Your task to perform on an android device: refresh tabs in the chrome app Image 0: 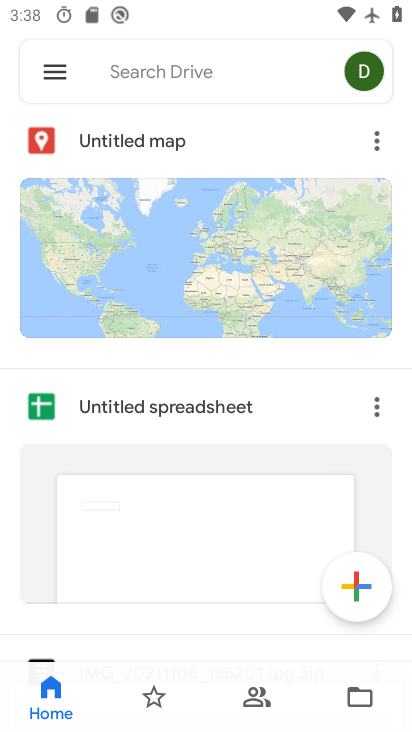
Step 0: press back button
Your task to perform on an android device: refresh tabs in the chrome app Image 1: 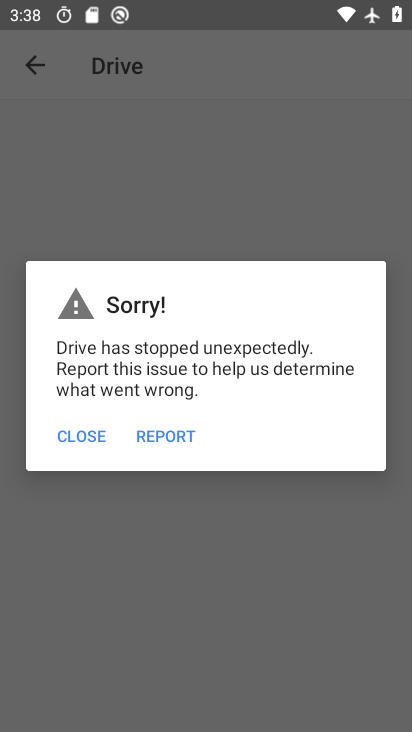
Step 1: press back button
Your task to perform on an android device: refresh tabs in the chrome app Image 2: 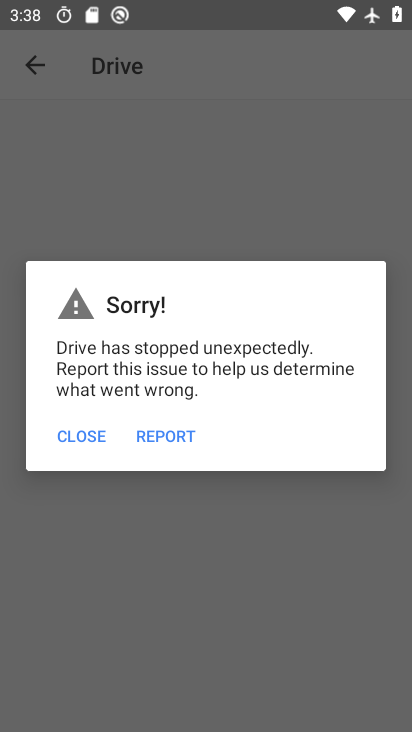
Step 2: press back button
Your task to perform on an android device: refresh tabs in the chrome app Image 3: 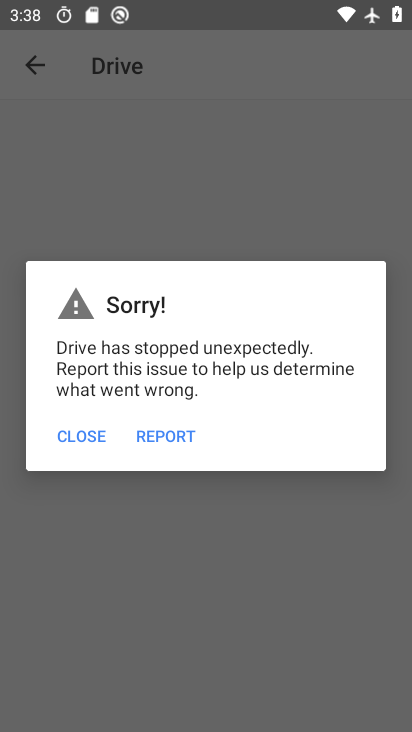
Step 3: click (48, 62)
Your task to perform on an android device: refresh tabs in the chrome app Image 4: 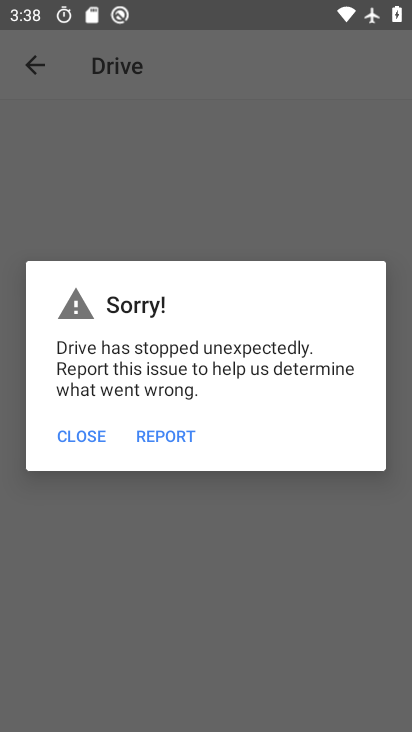
Step 4: click (34, 56)
Your task to perform on an android device: refresh tabs in the chrome app Image 5: 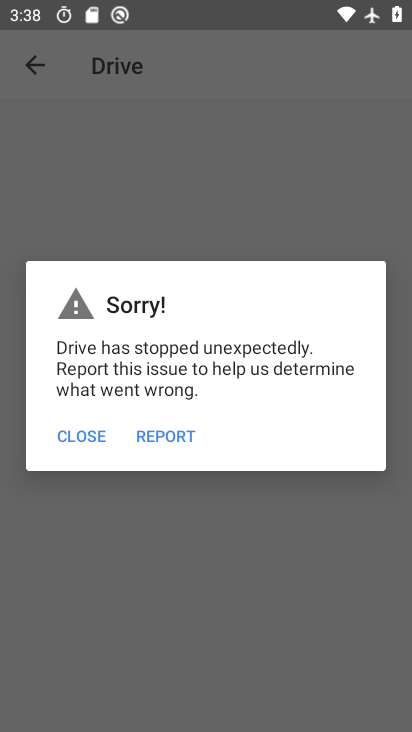
Step 5: click (34, 56)
Your task to perform on an android device: refresh tabs in the chrome app Image 6: 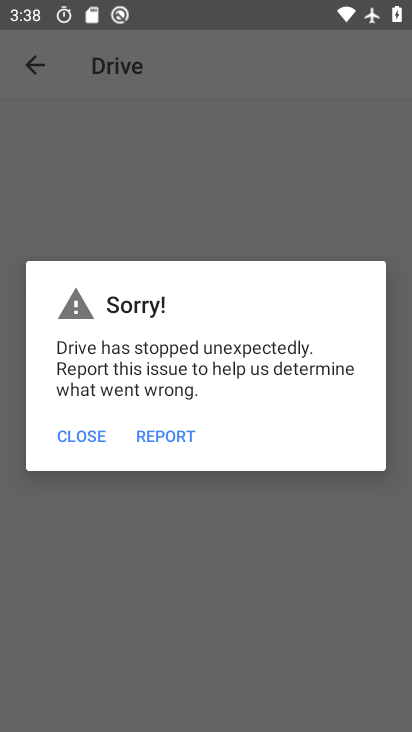
Step 6: click (37, 52)
Your task to perform on an android device: refresh tabs in the chrome app Image 7: 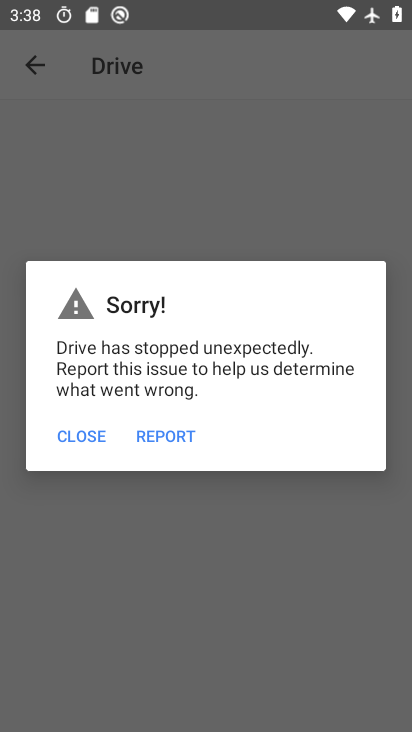
Step 7: click (37, 52)
Your task to perform on an android device: refresh tabs in the chrome app Image 8: 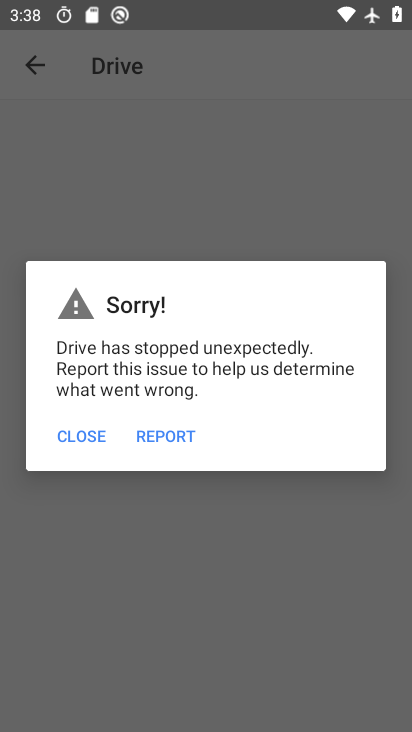
Step 8: click (97, 448)
Your task to perform on an android device: refresh tabs in the chrome app Image 9: 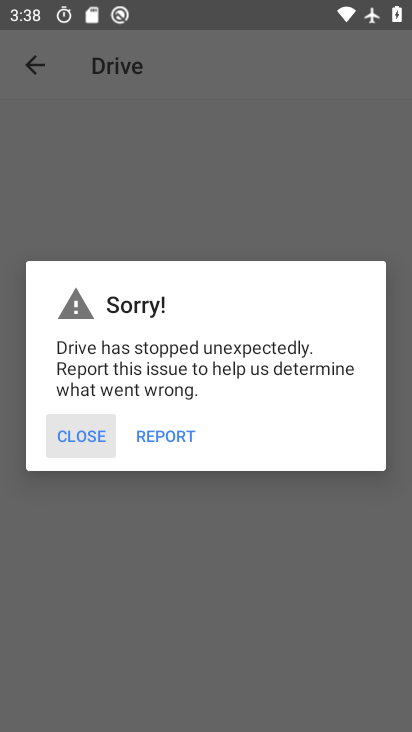
Step 9: click (94, 442)
Your task to perform on an android device: refresh tabs in the chrome app Image 10: 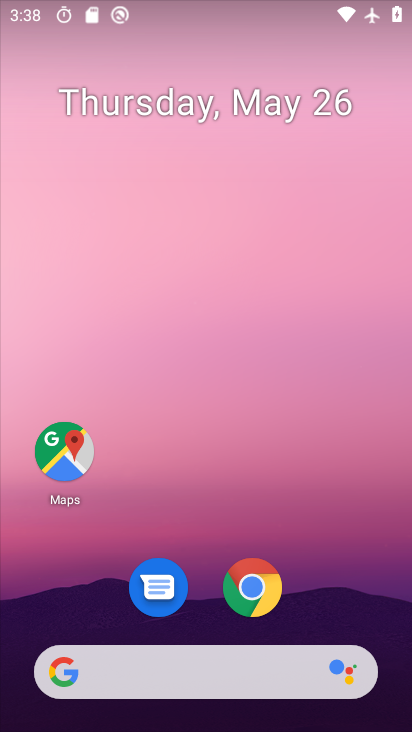
Step 10: drag from (242, 557) to (193, 65)
Your task to perform on an android device: refresh tabs in the chrome app Image 11: 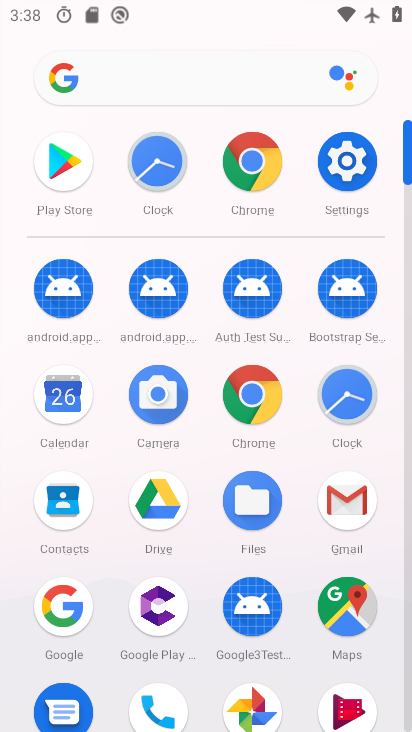
Step 11: click (247, 165)
Your task to perform on an android device: refresh tabs in the chrome app Image 12: 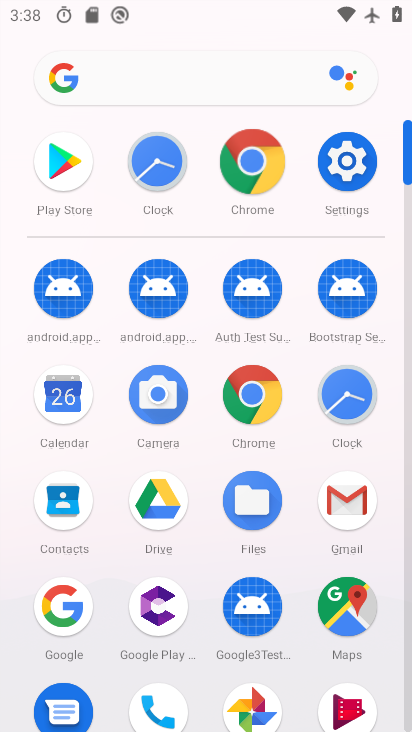
Step 12: click (248, 164)
Your task to perform on an android device: refresh tabs in the chrome app Image 13: 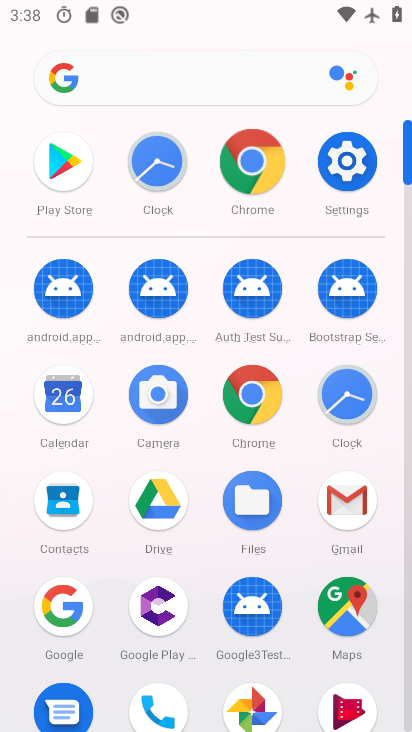
Step 13: click (257, 173)
Your task to perform on an android device: refresh tabs in the chrome app Image 14: 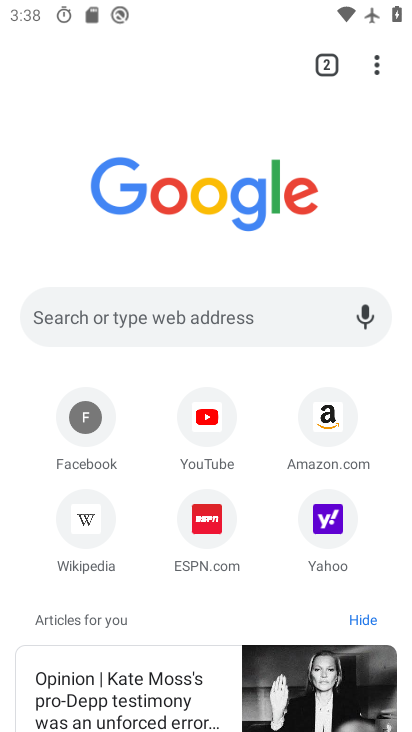
Step 14: click (374, 75)
Your task to perform on an android device: refresh tabs in the chrome app Image 15: 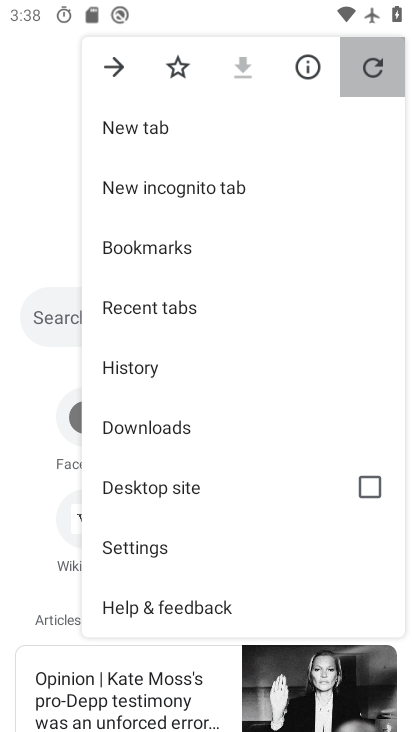
Step 15: click (370, 76)
Your task to perform on an android device: refresh tabs in the chrome app Image 16: 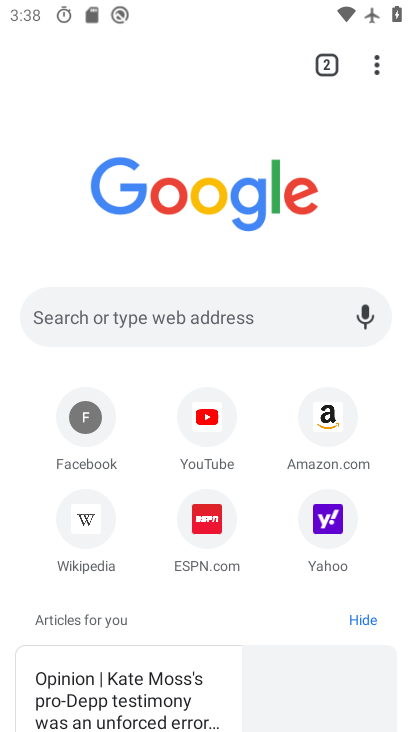
Step 16: click (377, 62)
Your task to perform on an android device: refresh tabs in the chrome app Image 17: 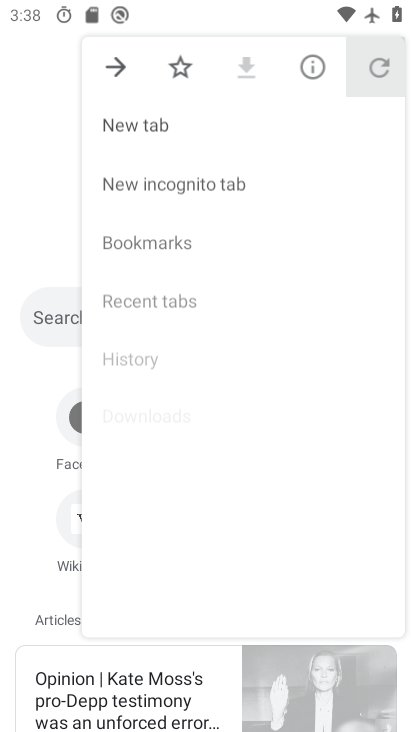
Step 17: click (377, 61)
Your task to perform on an android device: refresh tabs in the chrome app Image 18: 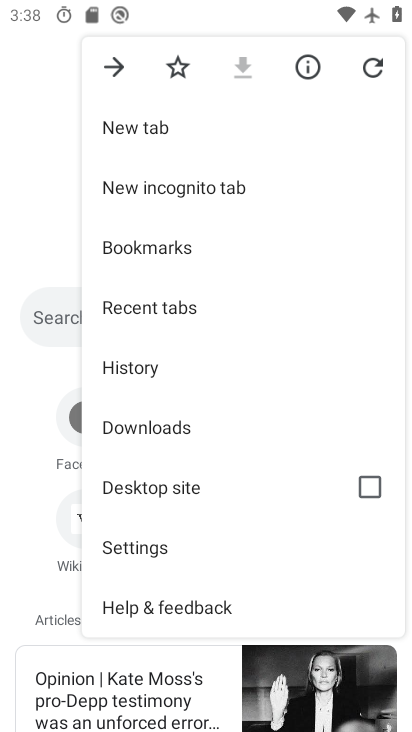
Step 18: task complete